Your task to perform on an android device: Search for "razer blade" on ebay.com, select the first entry, and add it to the cart. Image 0: 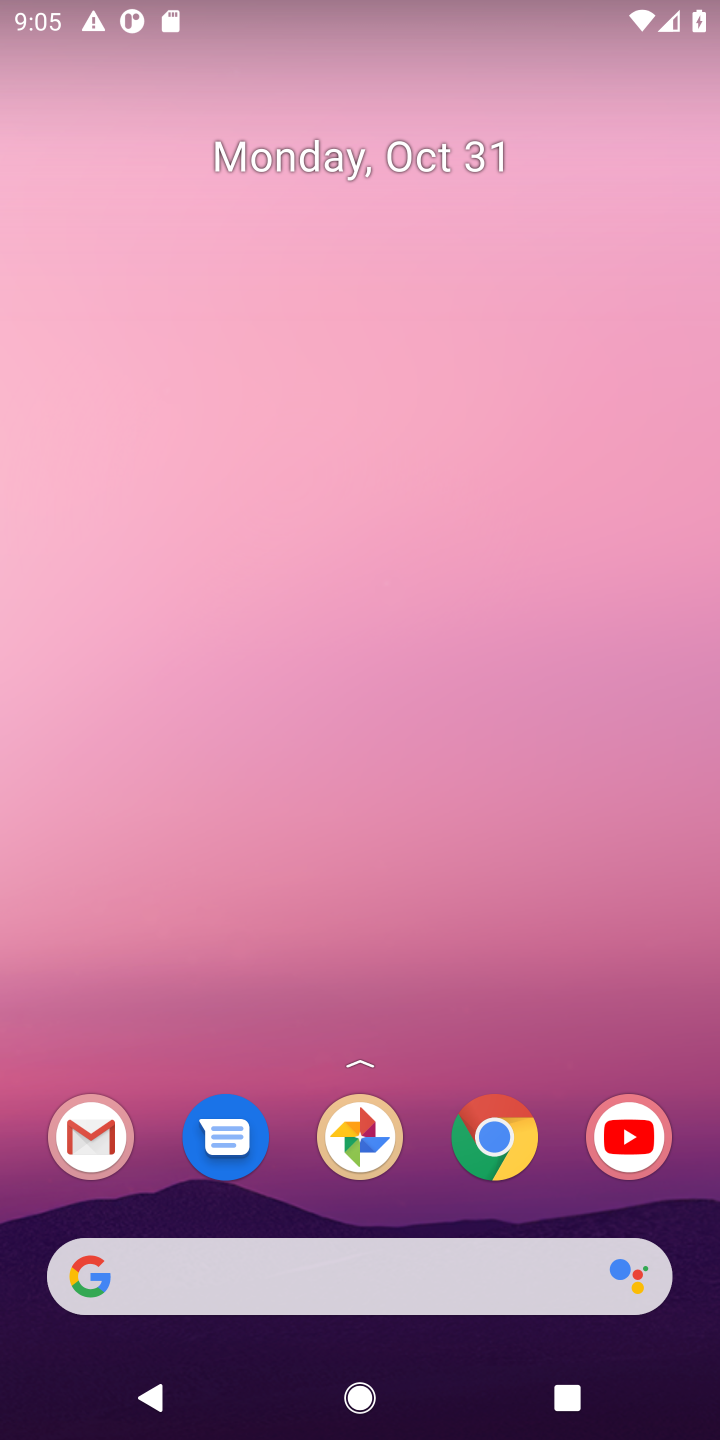
Step 0: click (474, 1155)
Your task to perform on an android device: Search for "razer blade" on ebay.com, select the first entry, and add it to the cart. Image 1: 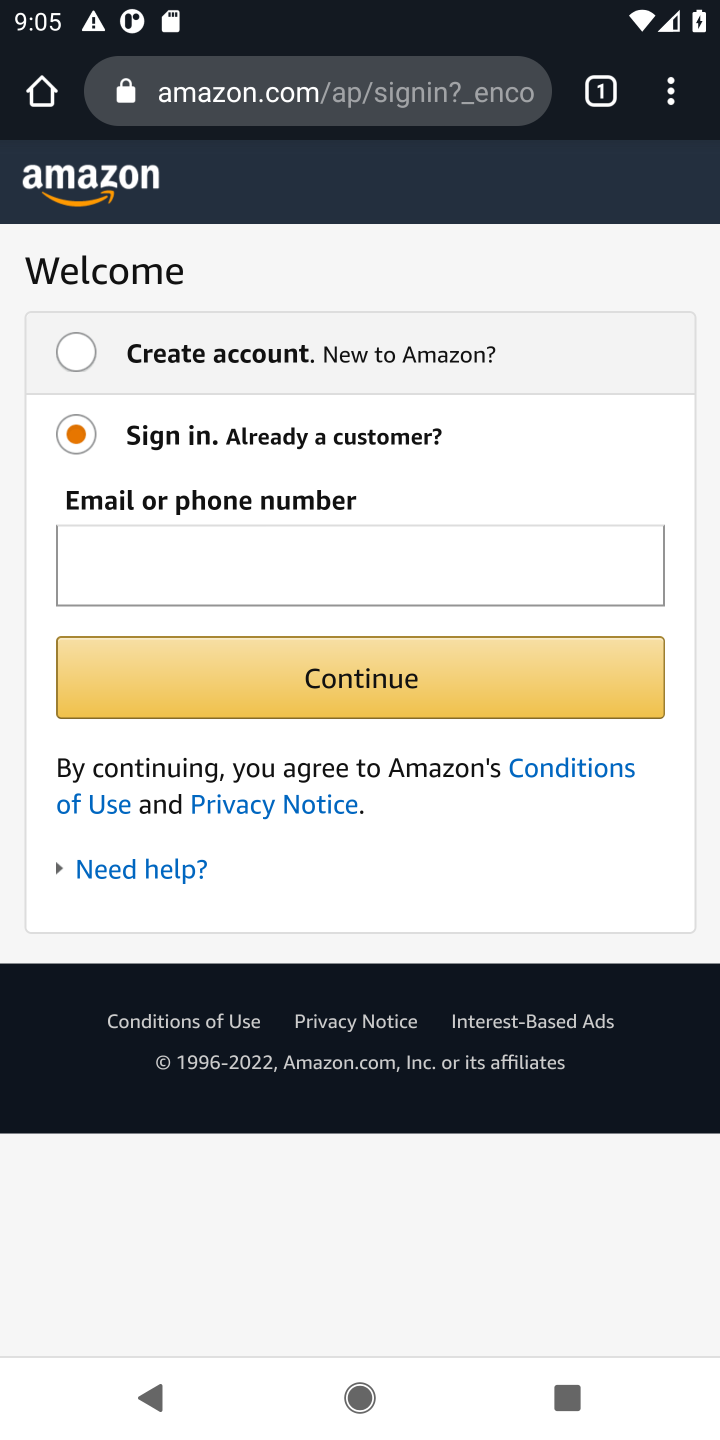
Step 1: click (371, 73)
Your task to perform on an android device: Search for "razer blade" on ebay.com, select the first entry, and add it to the cart. Image 2: 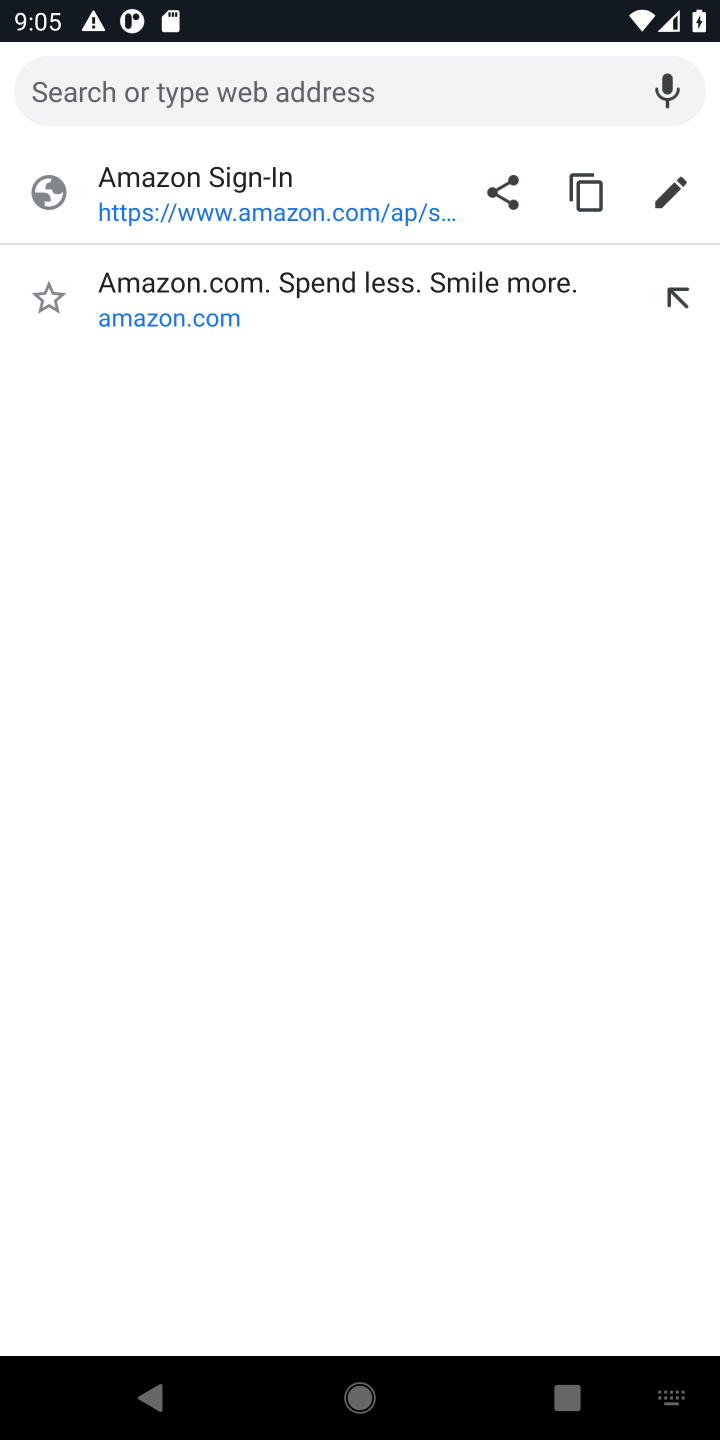
Step 2: type "ebay.com"
Your task to perform on an android device: Search for "razer blade" on ebay.com, select the first entry, and add it to the cart. Image 3: 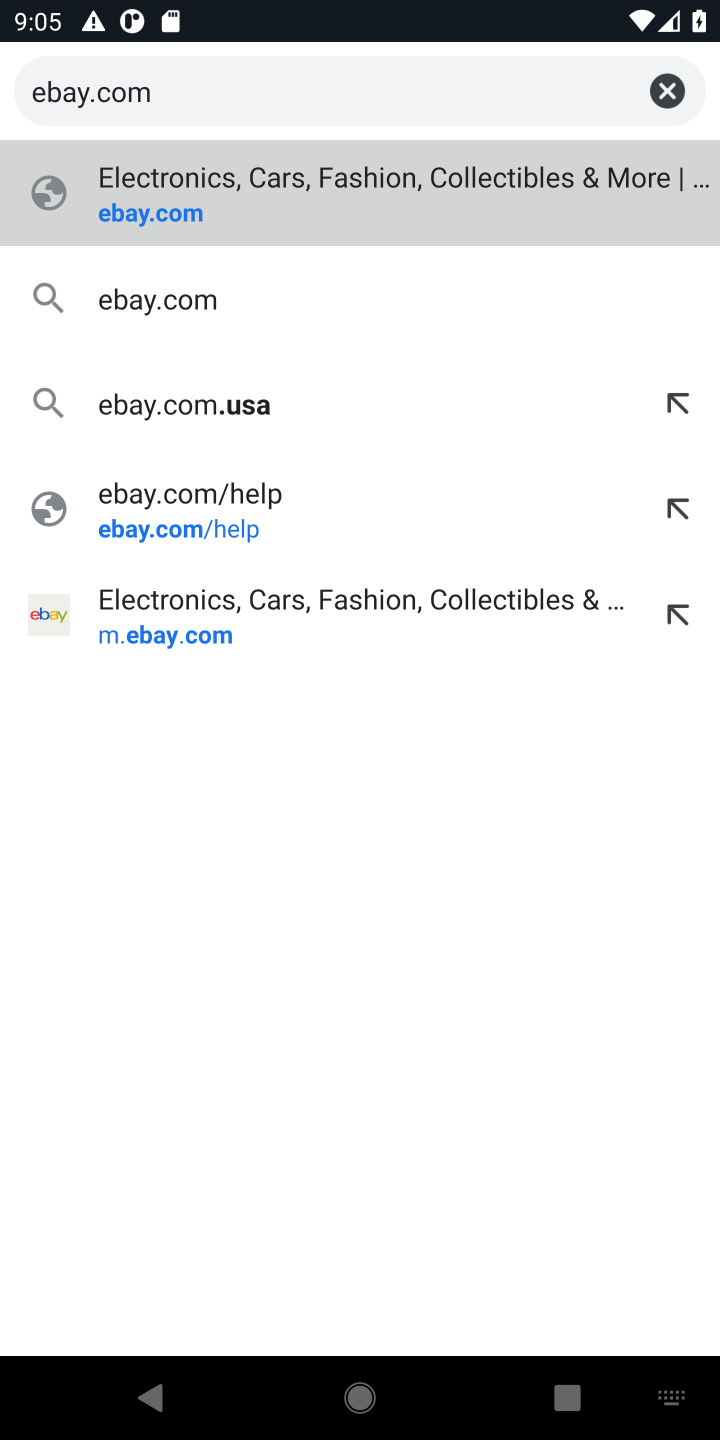
Step 3: click (185, 307)
Your task to perform on an android device: Search for "razer blade" on ebay.com, select the first entry, and add it to the cart. Image 4: 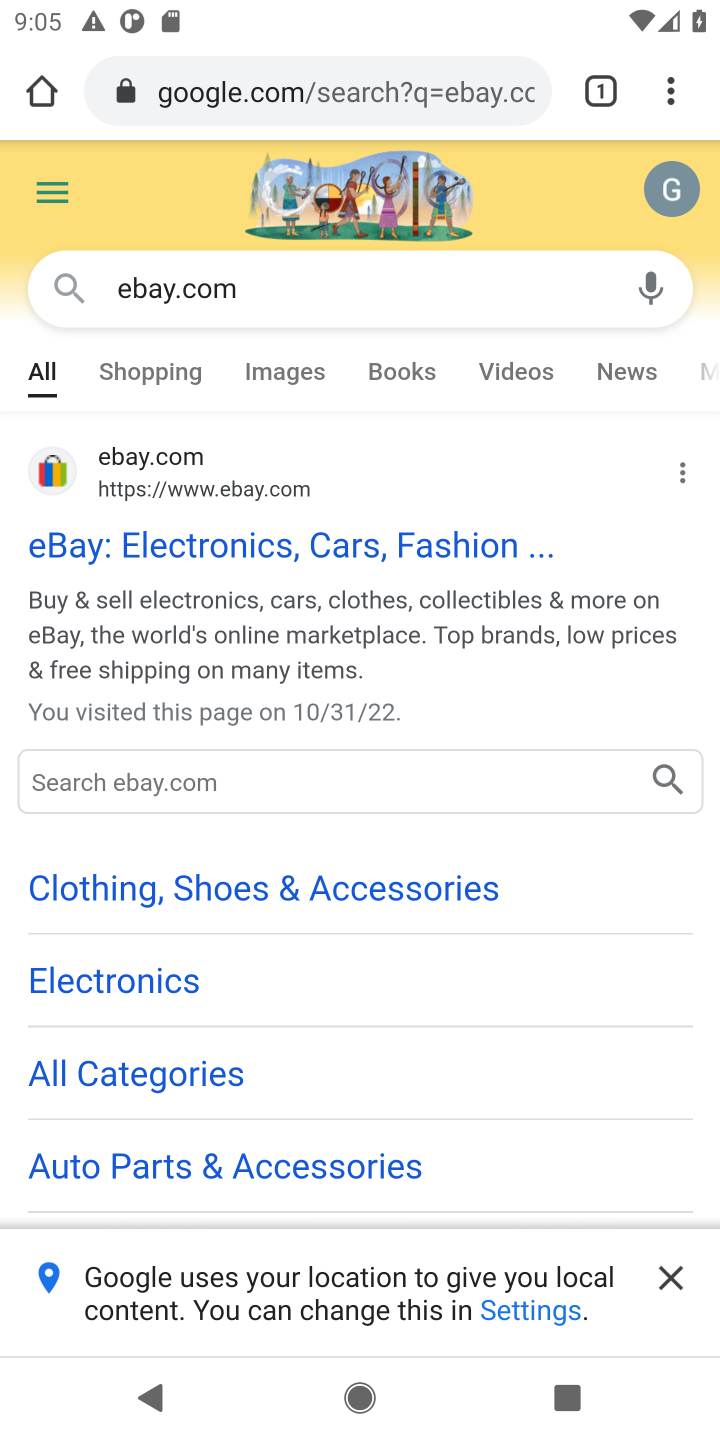
Step 4: click (175, 481)
Your task to perform on an android device: Search for "razer blade" on ebay.com, select the first entry, and add it to the cart. Image 5: 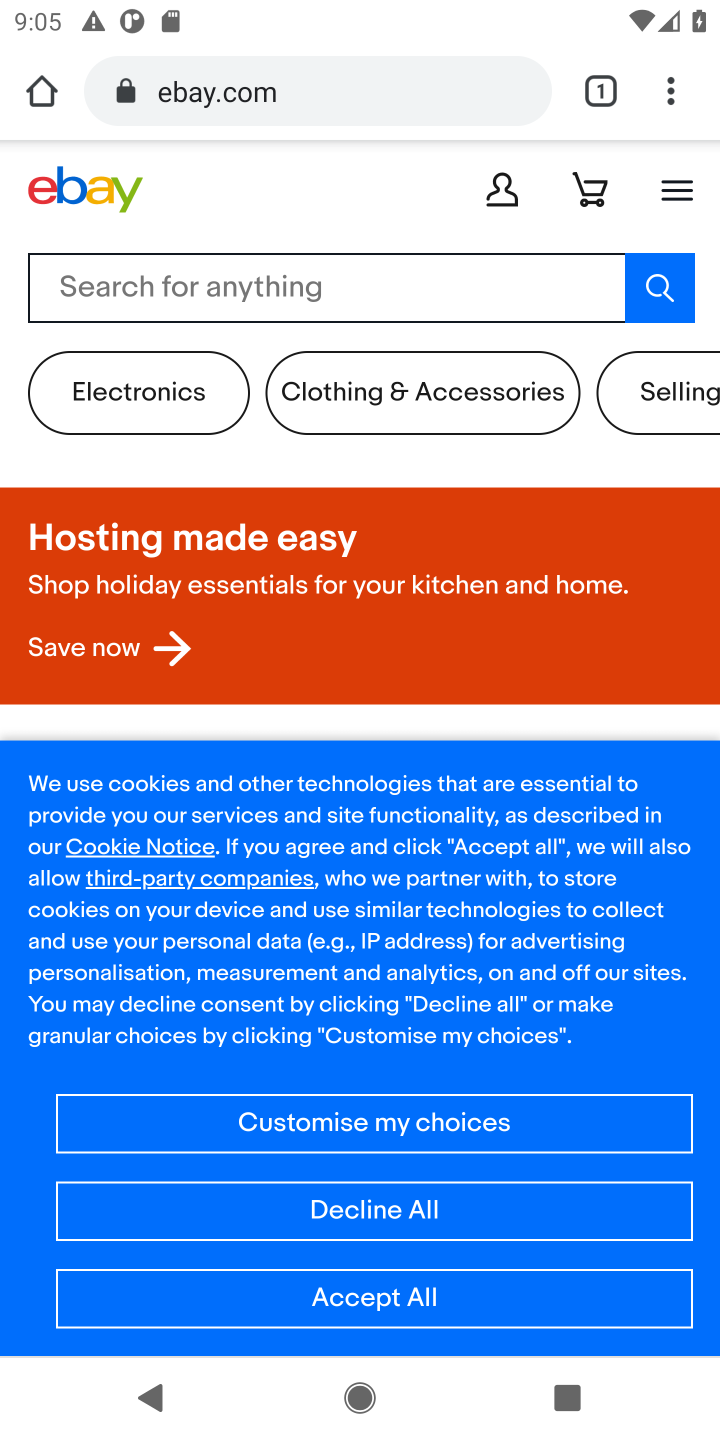
Step 5: click (202, 286)
Your task to perform on an android device: Search for "razer blade" on ebay.com, select the first entry, and add it to the cart. Image 6: 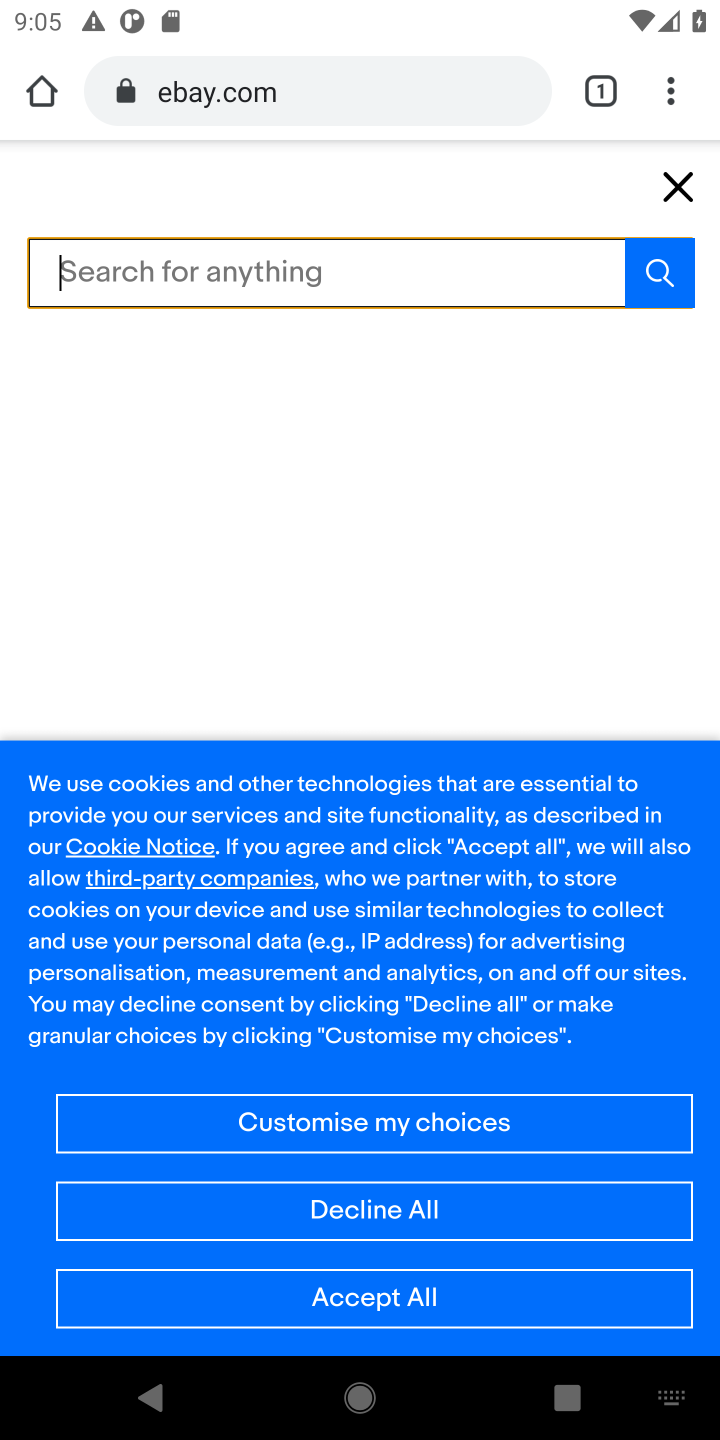
Step 6: type "razer blade"
Your task to perform on an android device: Search for "razer blade" on ebay.com, select the first entry, and add it to the cart. Image 7: 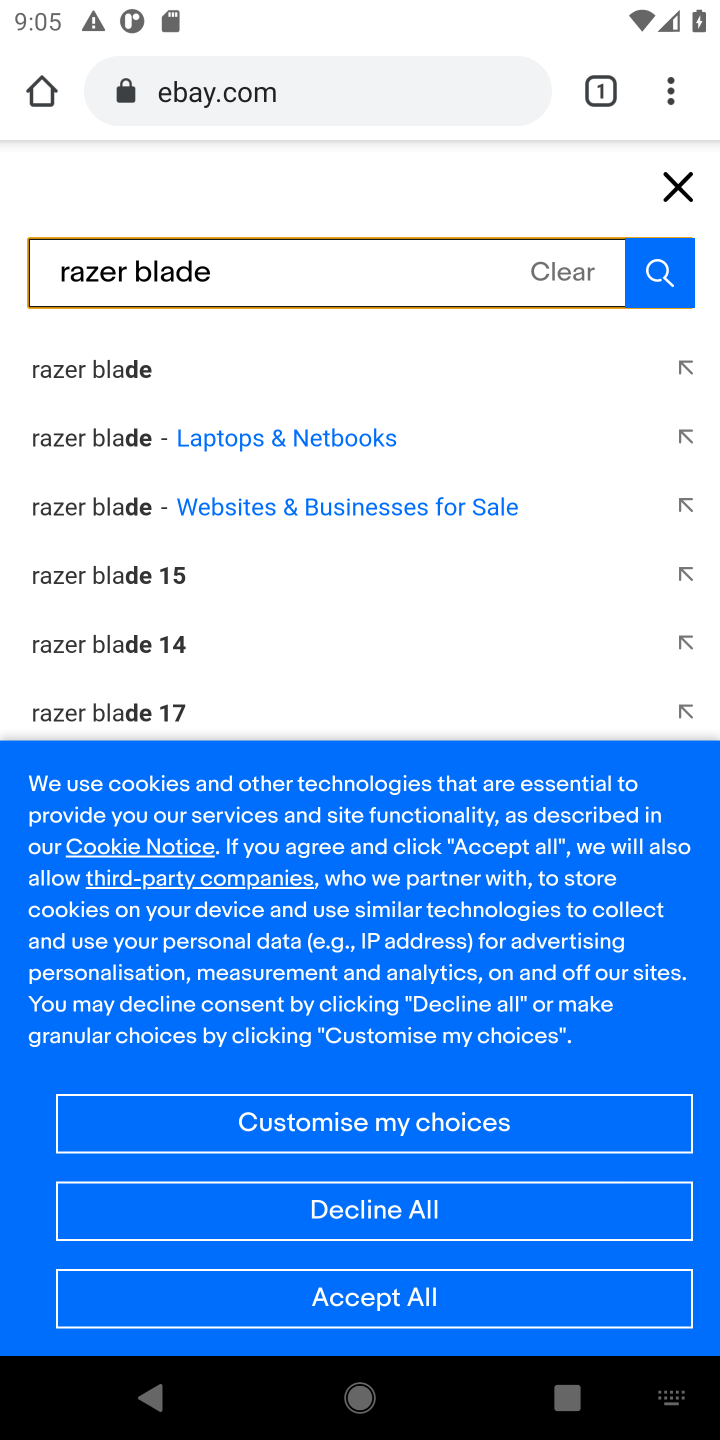
Step 7: click (117, 363)
Your task to perform on an android device: Search for "razer blade" on ebay.com, select the first entry, and add it to the cart. Image 8: 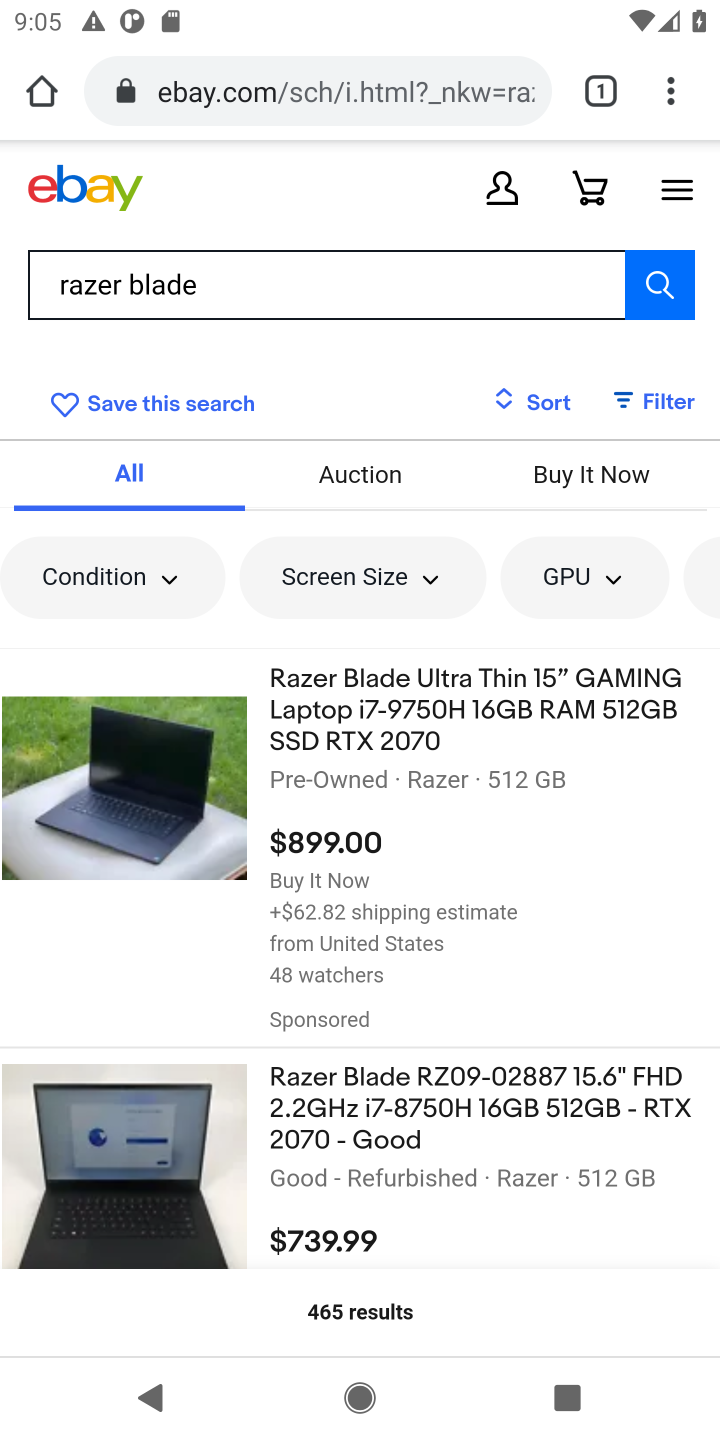
Step 8: click (275, 805)
Your task to perform on an android device: Search for "razer blade" on ebay.com, select the first entry, and add it to the cart. Image 9: 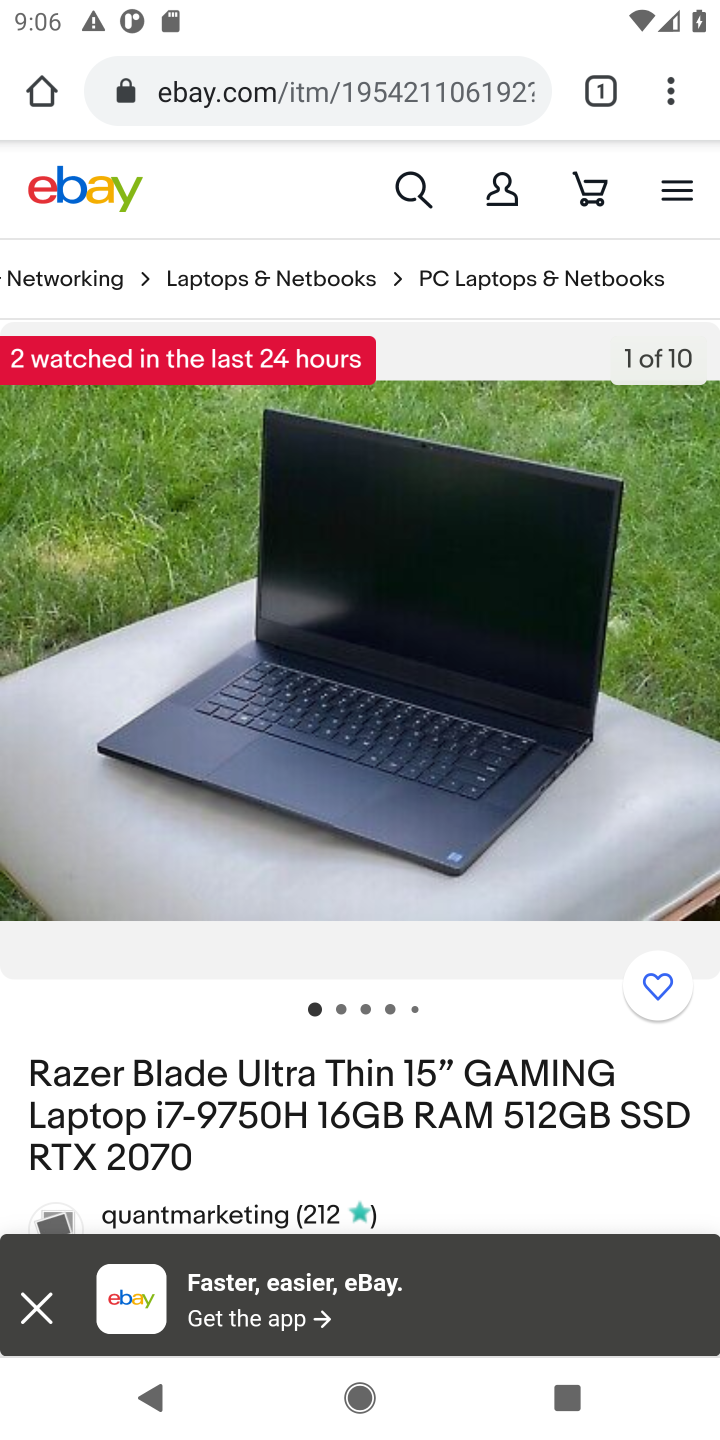
Step 9: drag from (366, 1042) to (305, 302)
Your task to perform on an android device: Search for "razer blade" on ebay.com, select the first entry, and add it to the cart. Image 10: 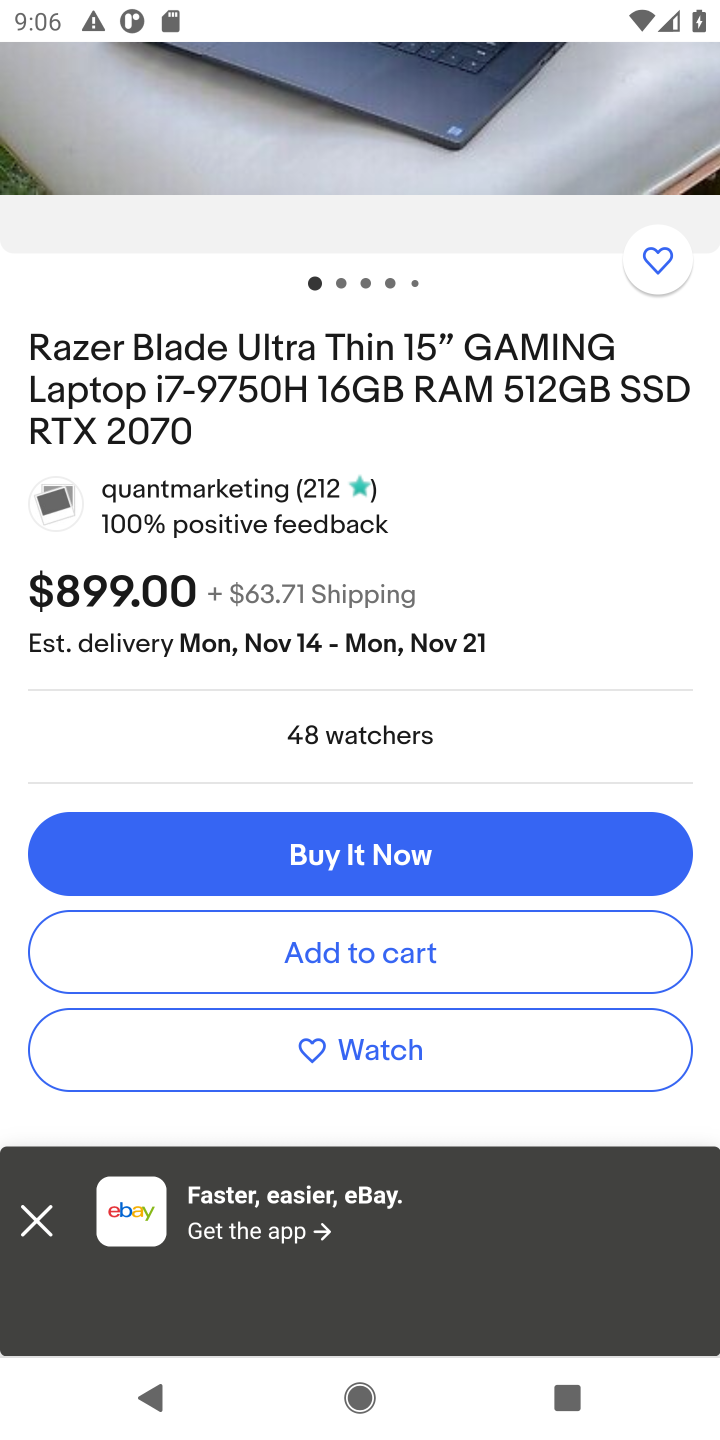
Step 10: click (348, 953)
Your task to perform on an android device: Search for "razer blade" on ebay.com, select the first entry, and add it to the cart. Image 11: 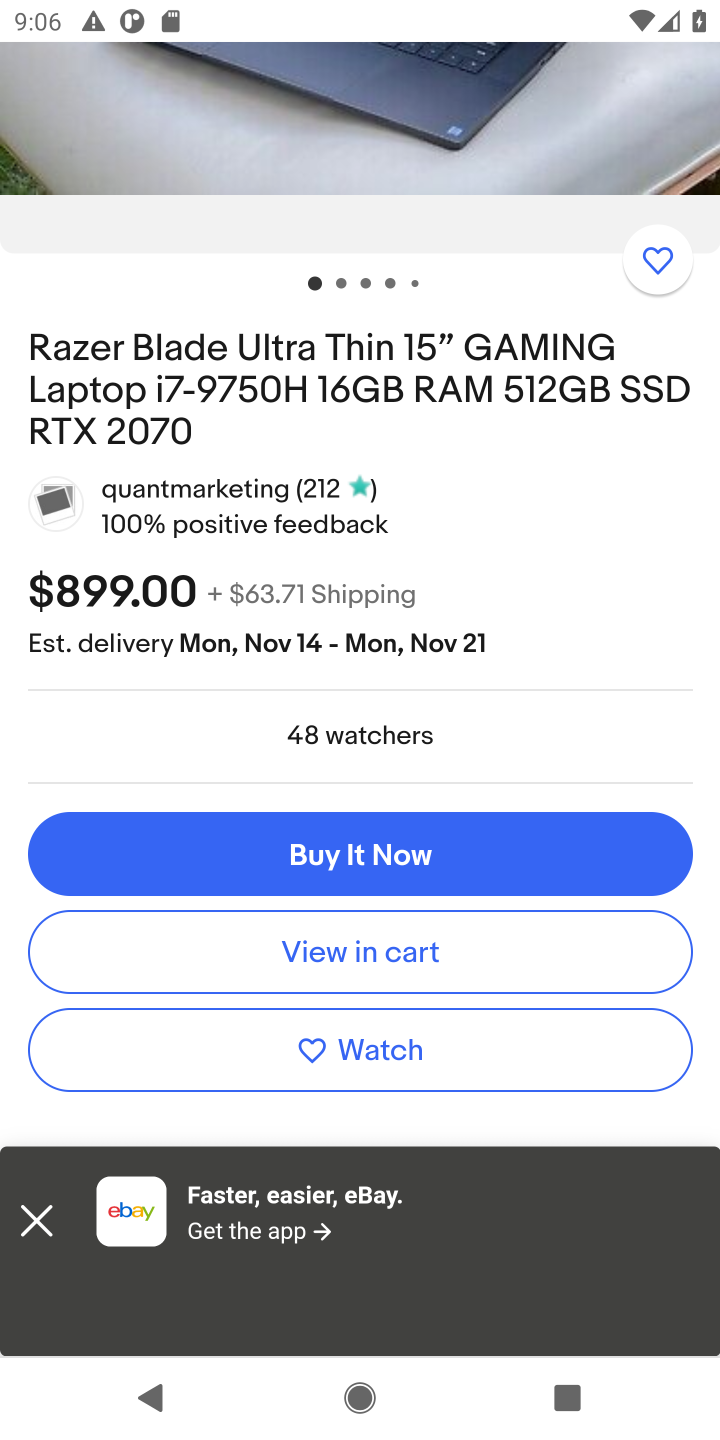
Step 11: task complete